Your task to perform on an android device: Open battery settings Image 0: 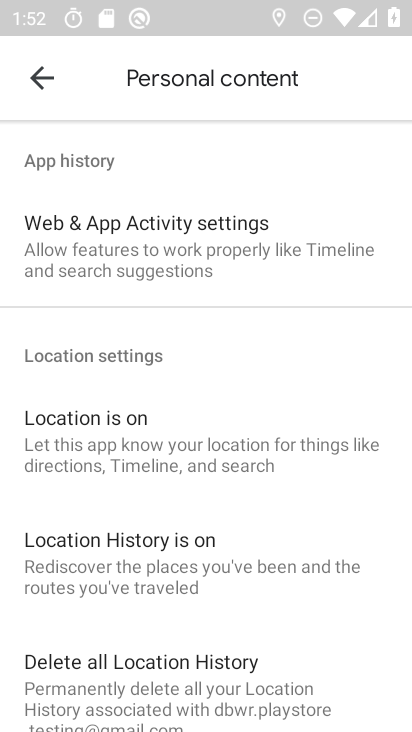
Step 0: press home button
Your task to perform on an android device: Open battery settings Image 1: 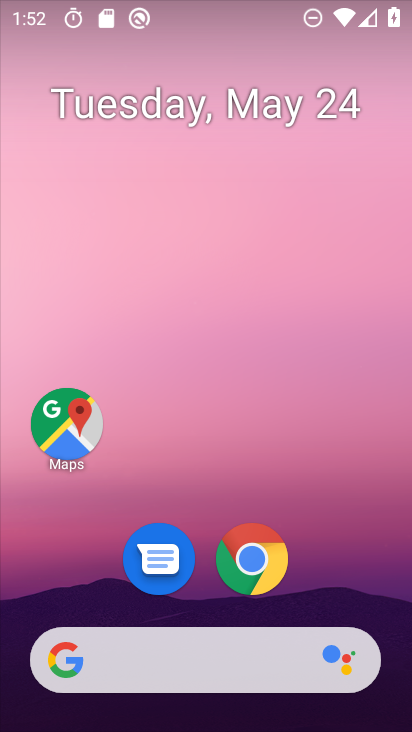
Step 1: drag from (396, 689) to (371, 136)
Your task to perform on an android device: Open battery settings Image 2: 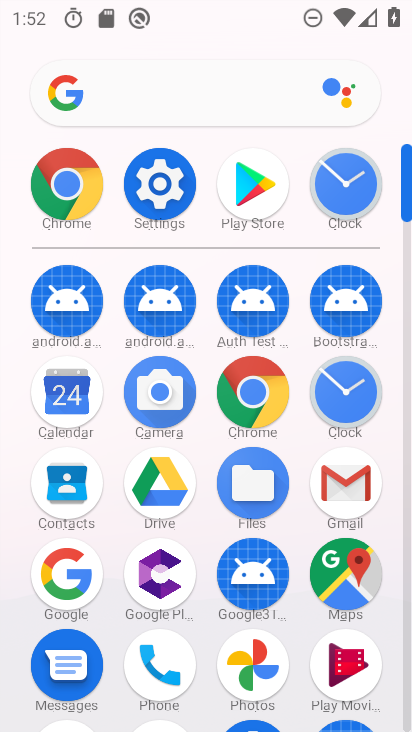
Step 2: click (168, 194)
Your task to perform on an android device: Open battery settings Image 3: 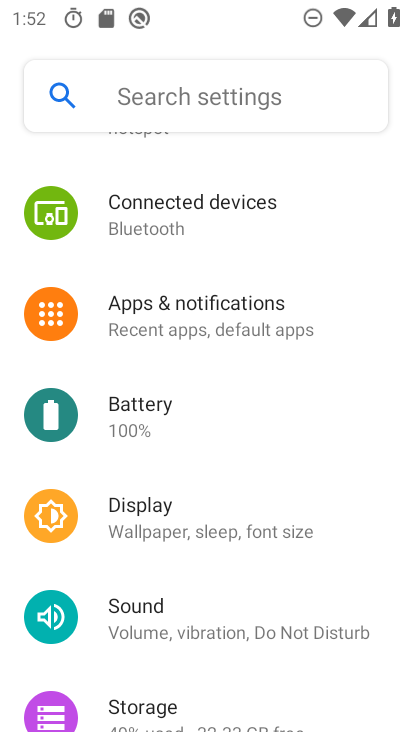
Step 3: click (129, 419)
Your task to perform on an android device: Open battery settings Image 4: 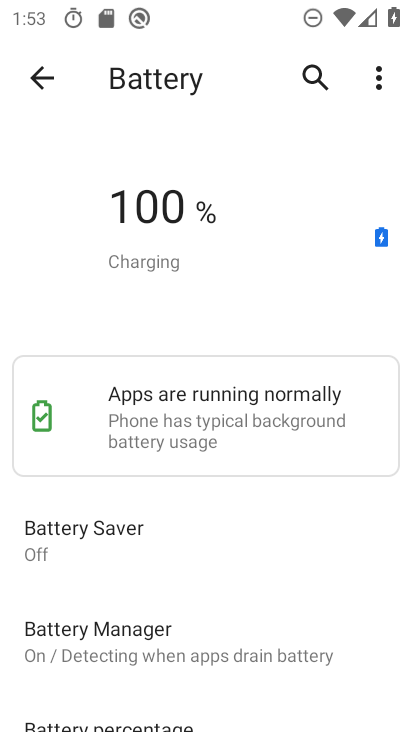
Step 4: task complete